Your task to perform on an android device: Search for a runner rug on Crate & Barrel Image 0: 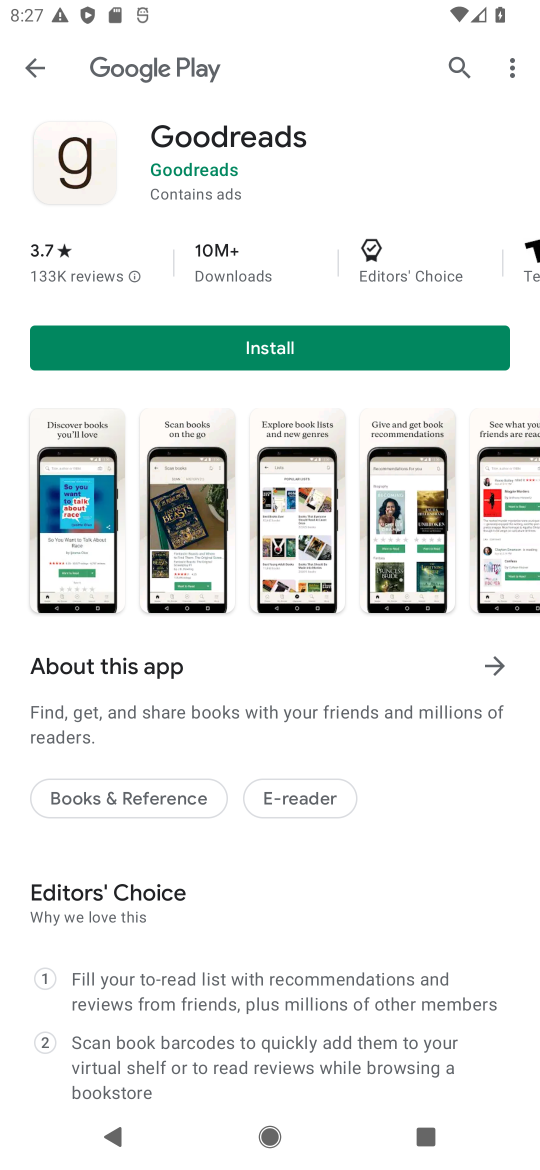
Step 0: press home button
Your task to perform on an android device: Search for a runner rug on Crate & Barrel Image 1: 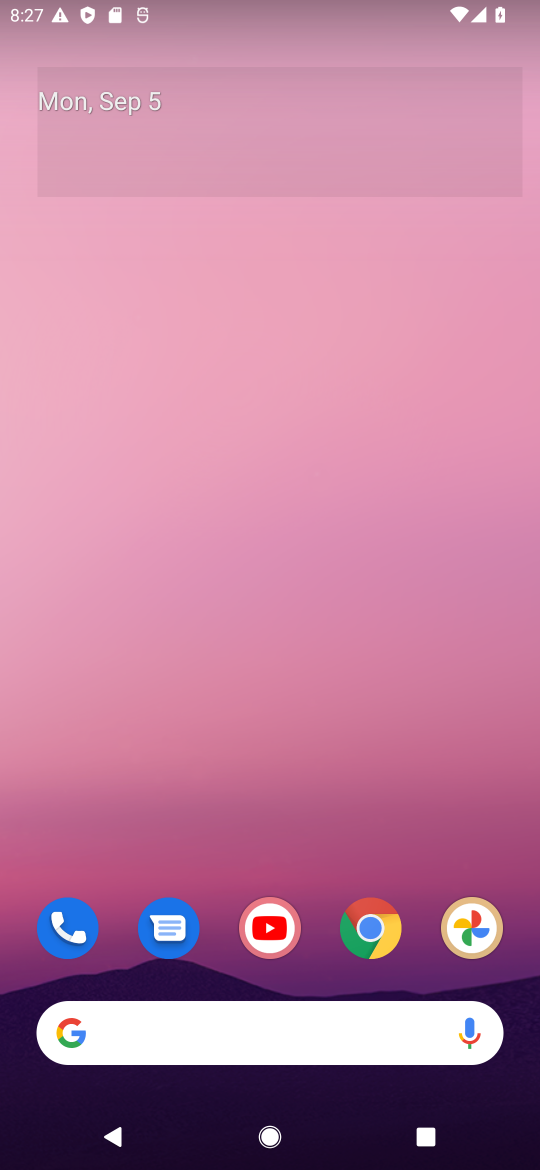
Step 1: click (346, 924)
Your task to perform on an android device: Search for a runner rug on Crate & Barrel Image 2: 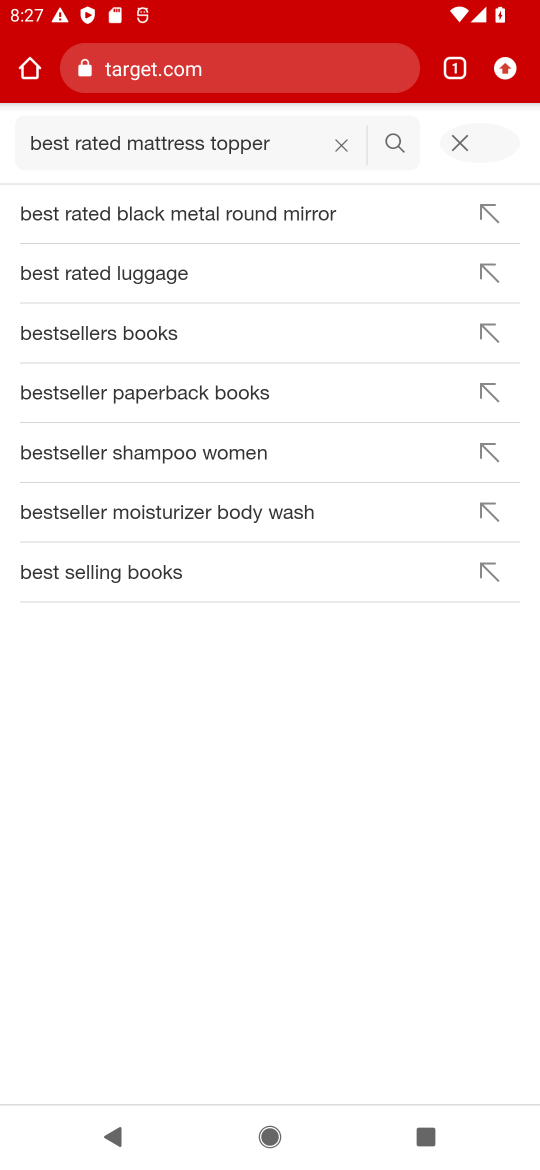
Step 2: click (259, 71)
Your task to perform on an android device: Search for a runner rug on Crate & Barrel Image 3: 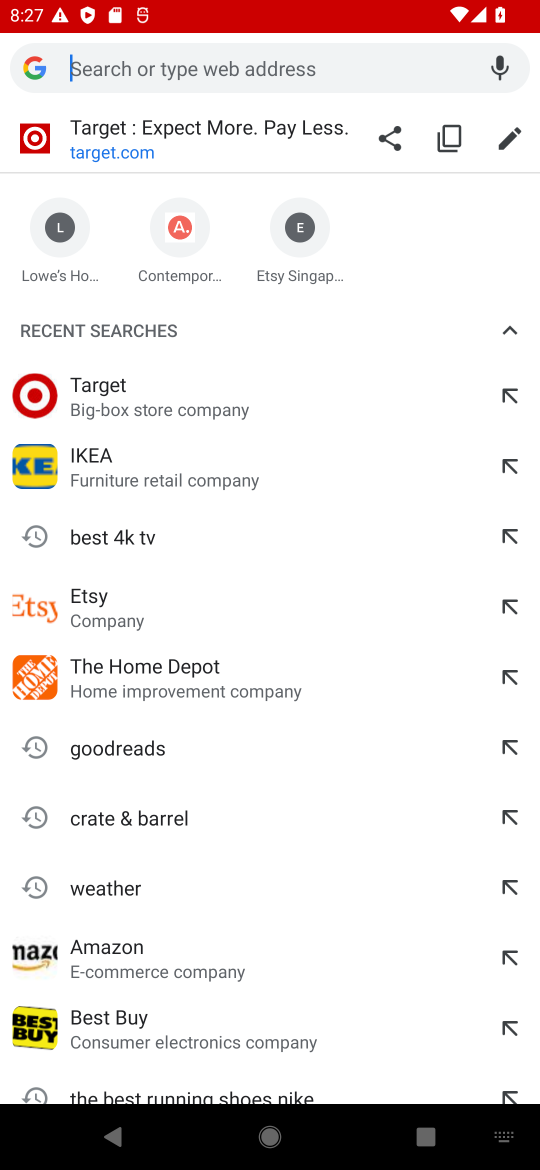
Step 3: type "crate & barrel"
Your task to perform on an android device: Search for a runner rug on Crate & Barrel Image 4: 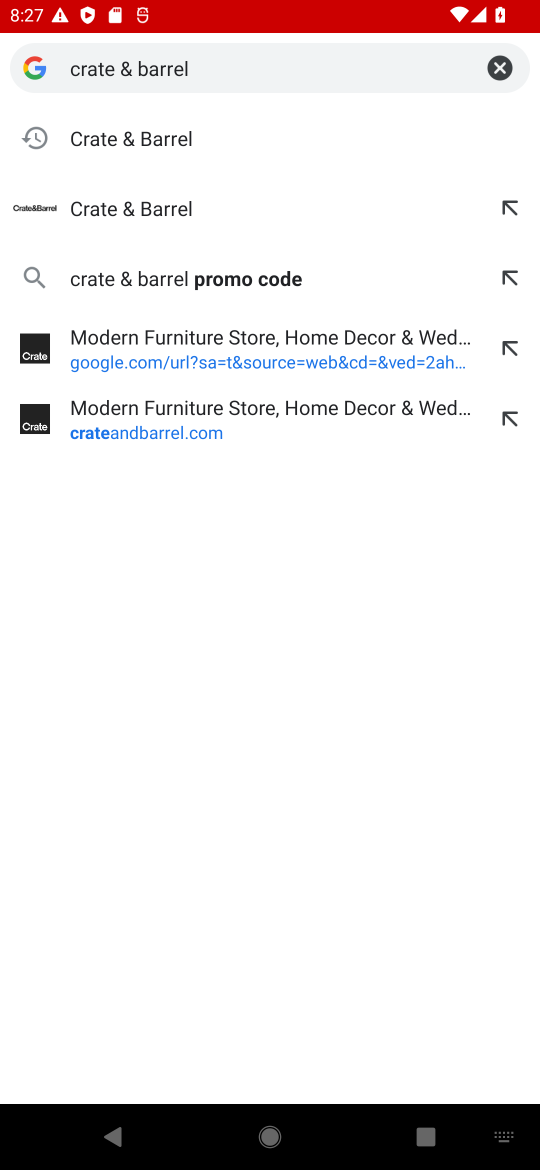
Step 4: click (193, 146)
Your task to perform on an android device: Search for a runner rug on Crate & Barrel Image 5: 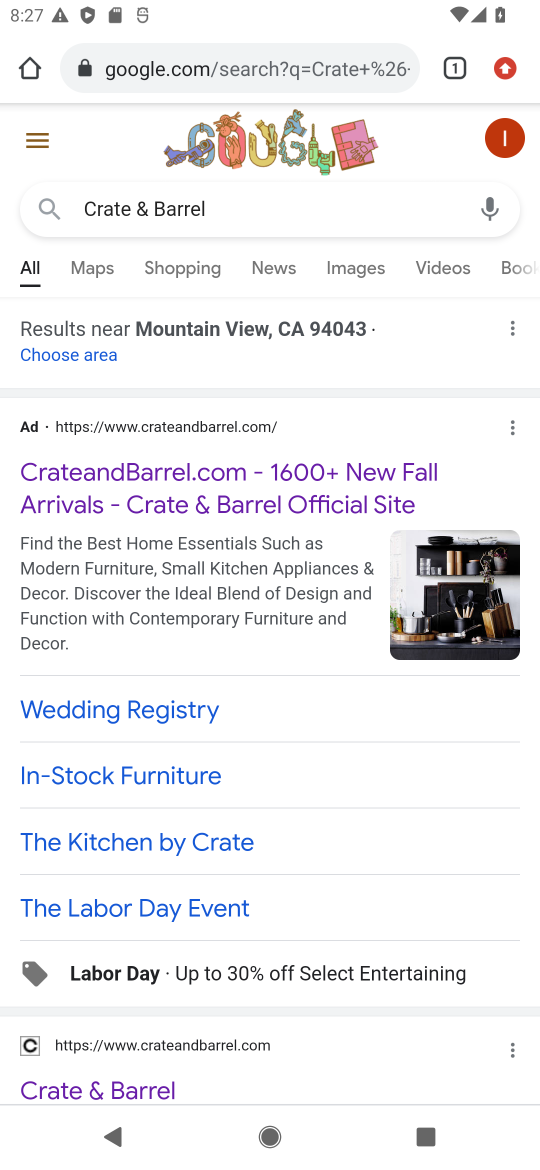
Step 5: click (55, 1088)
Your task to perform on an android device: Search for a runner rug on Crate & Barrel Image 6: 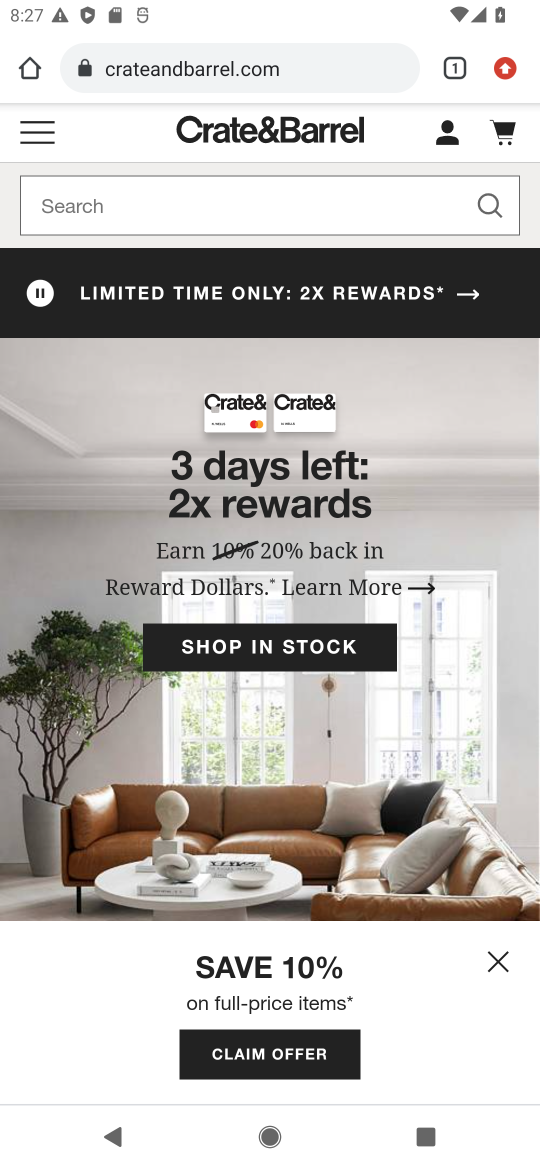
Step 6: click (197, 200)
Your task to perform on an android device: Search for a runner rug on Crate & Barrel Image 7: 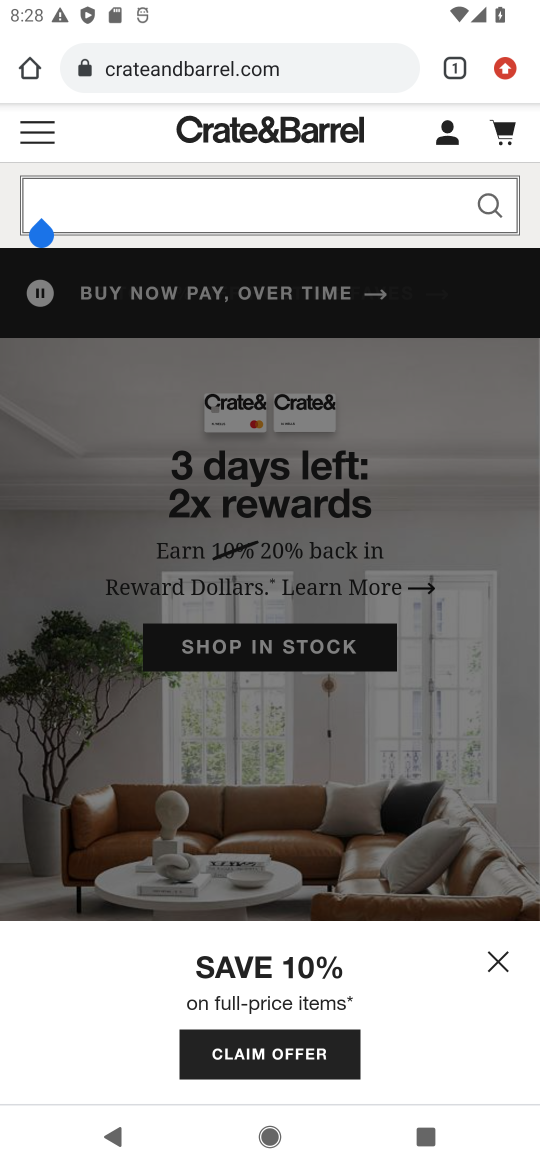
Step 7: type "runner rug "
Your task to perform on an android device: Search for a runner rug on Crate & Barrel Image 8: 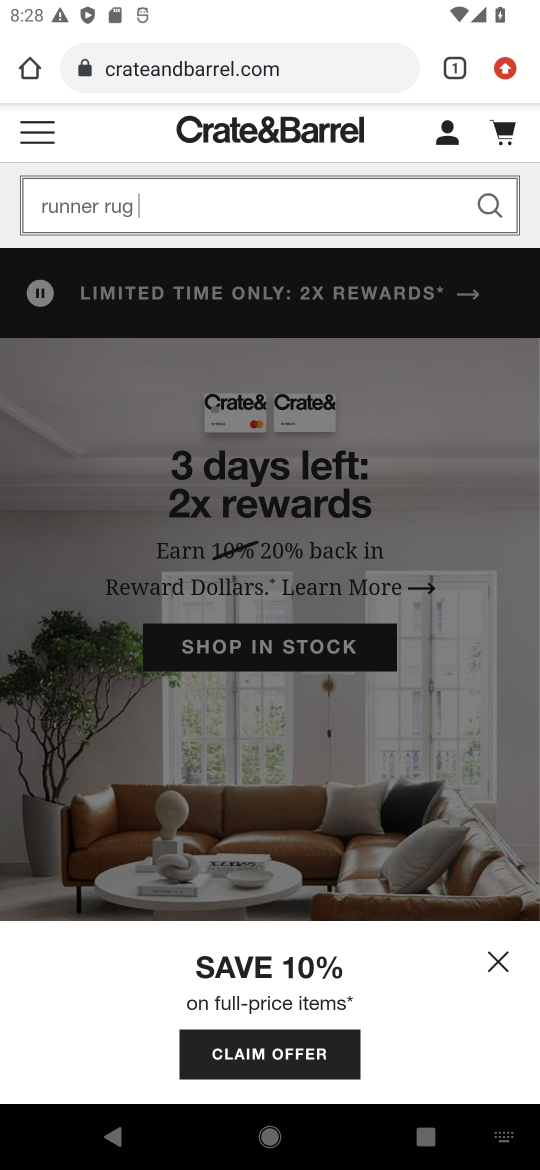
Step 8: click (493, 213)
Your task to perform on an android device: Search for a runner rug on Crate & Barrel Image 9: 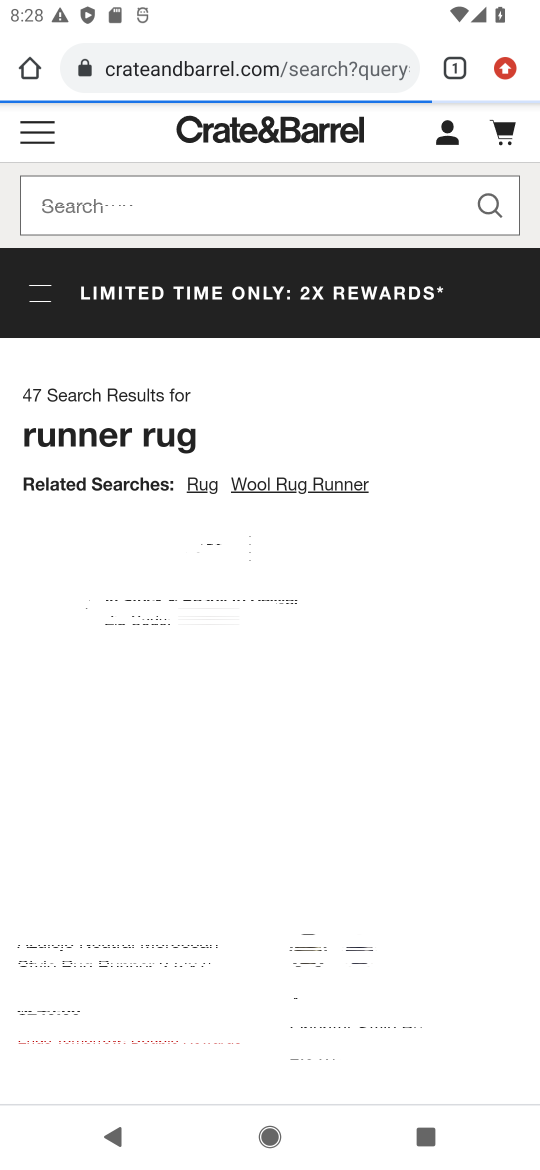
Step 9: task complete